Your task to perform on an android device: Search for a new lawnmower on Lowes.com Image 0: 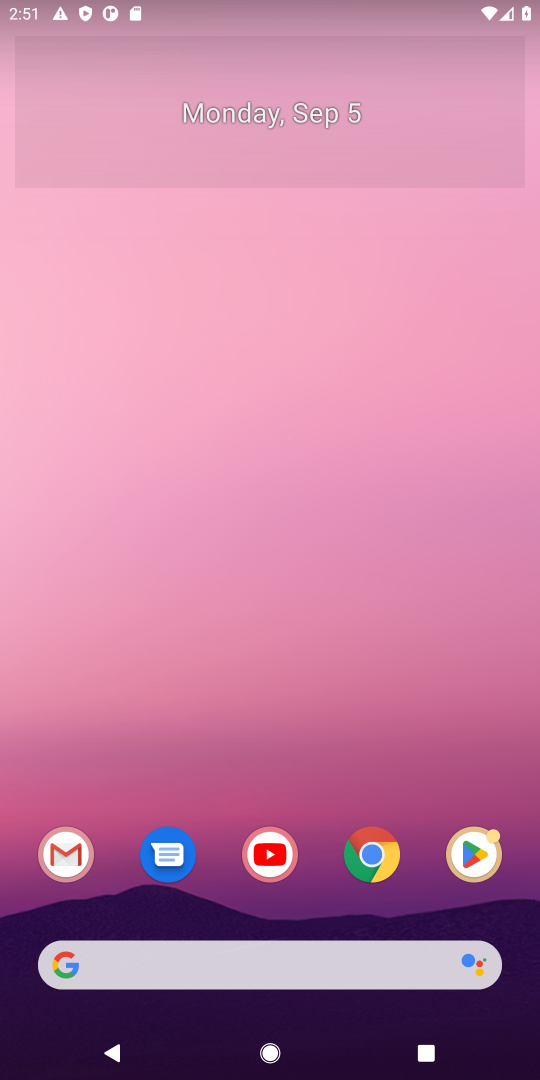
Step 0: click (392, 963)
Your task to perform on an android device: Search for a new lawnmower on Lowes.com Image 1: 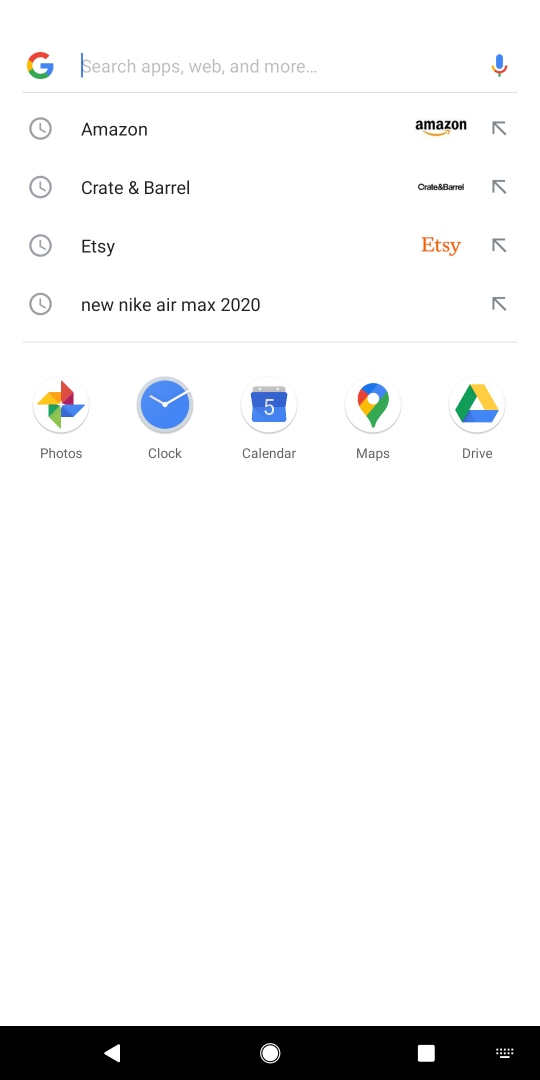
Step 1: type "lowes.com"
Your task to perform on an android device: Search for a new lawnmower on Lowes.com Image 2: 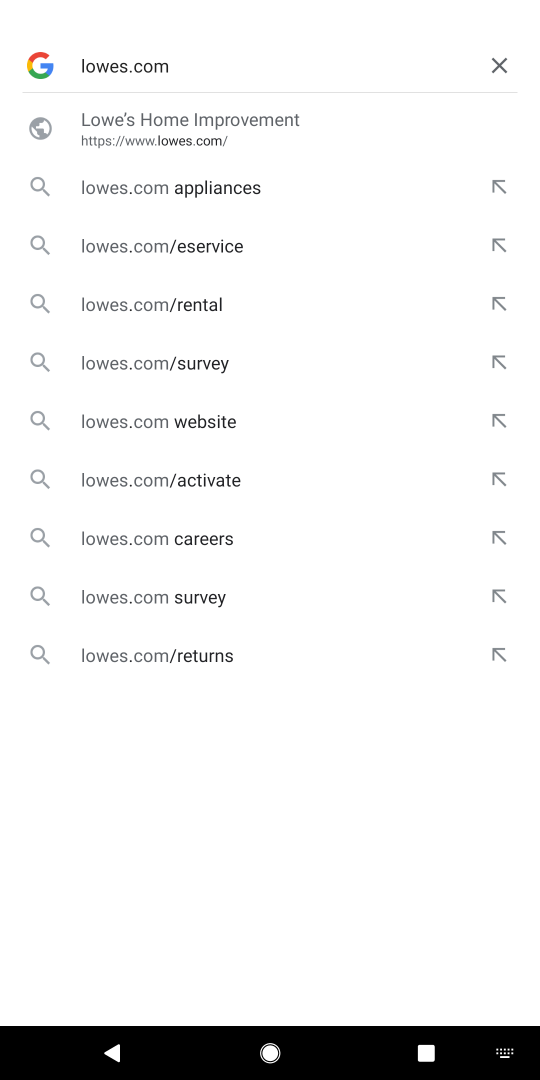
Step 2: press enter
Your task to perform on an android device: Search for a new lawnmower on Lowes.com Image 3: 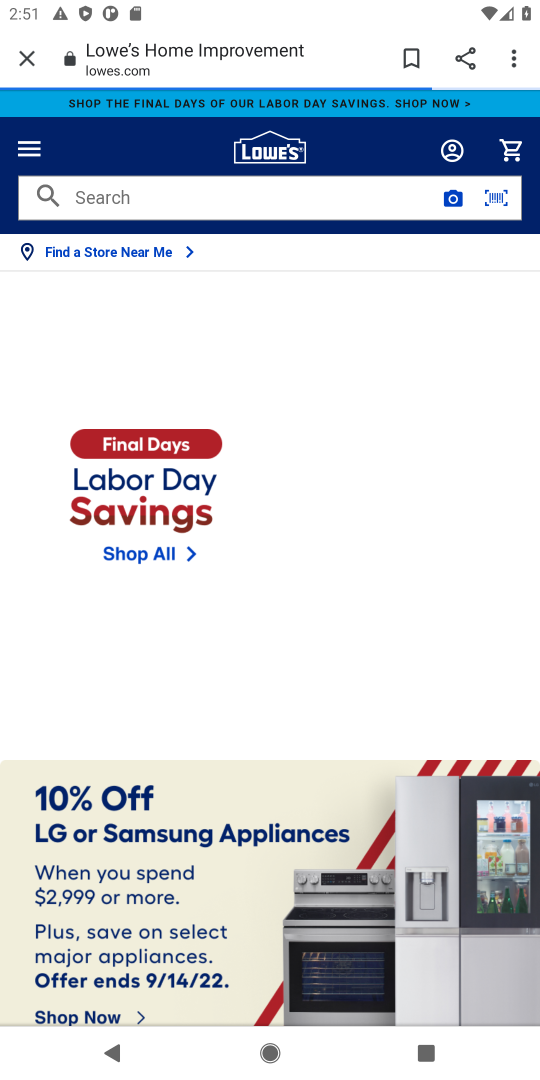
Step 3: click (216, 194)
Your task to perform on an android device: Search for a new lawnmower on Lowes.com Image 4: 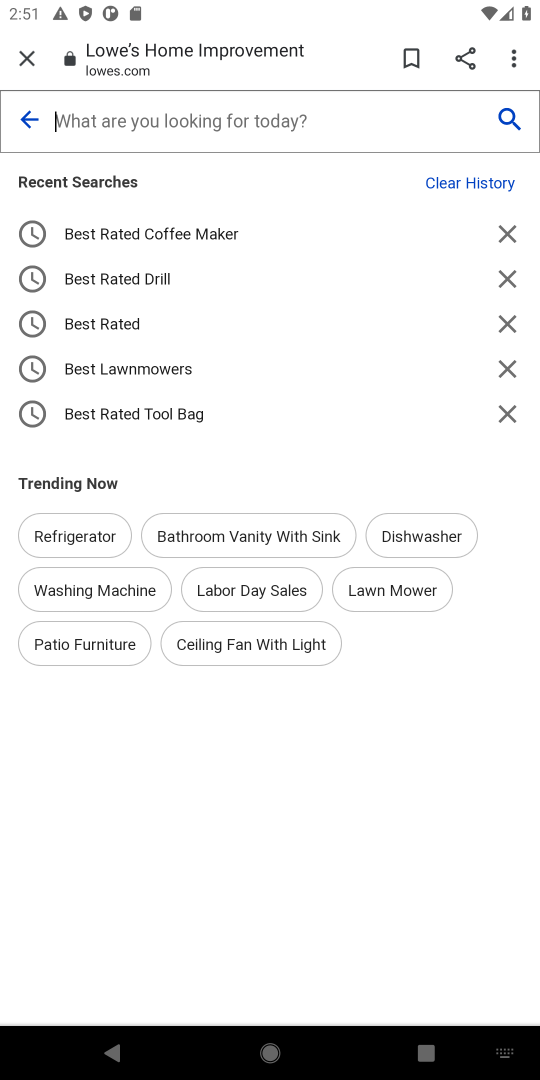
Step 4: press enter
Your task to perform on an android device: Search for a new lawnmower on Lowes.com Image 5: 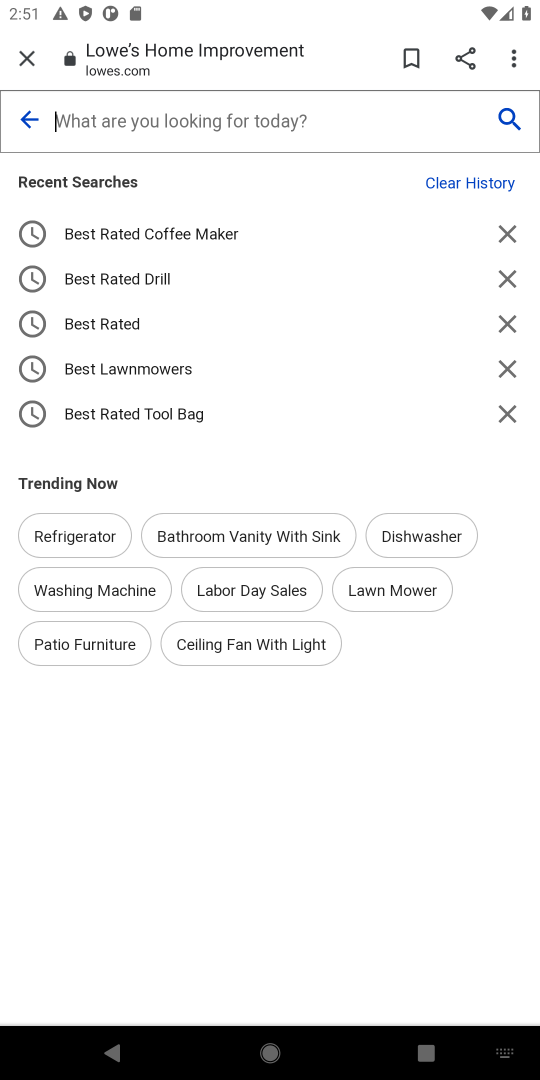
Step 5: type "new lawnmower"
Your task to perform on an android device: Search for a new lawnmower on Lowes.com Image 6: 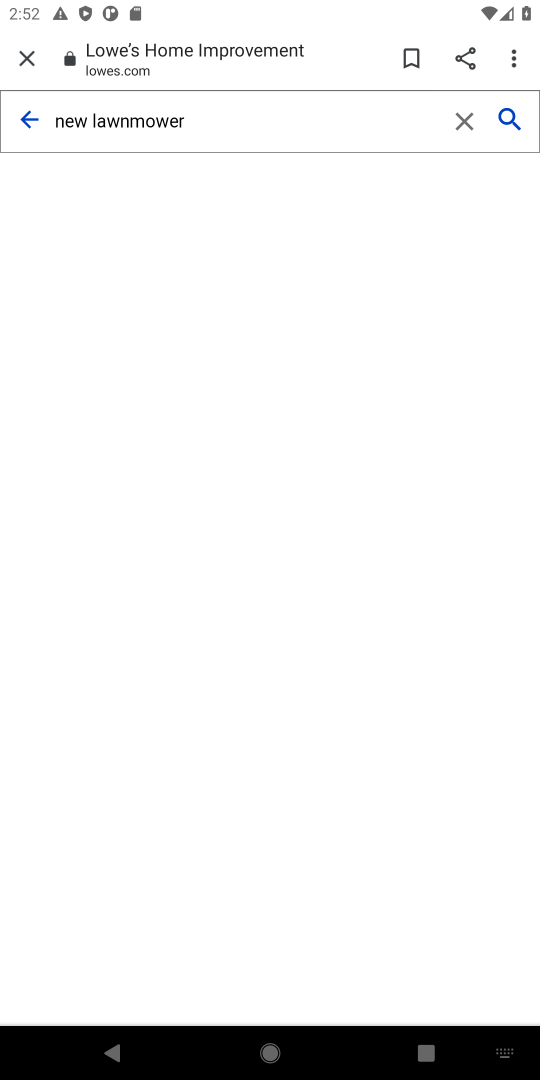
Step 6: click (514, 113)
Your task to perform on an android device: Search for a new lawnmower on Lowes.com Image 7: 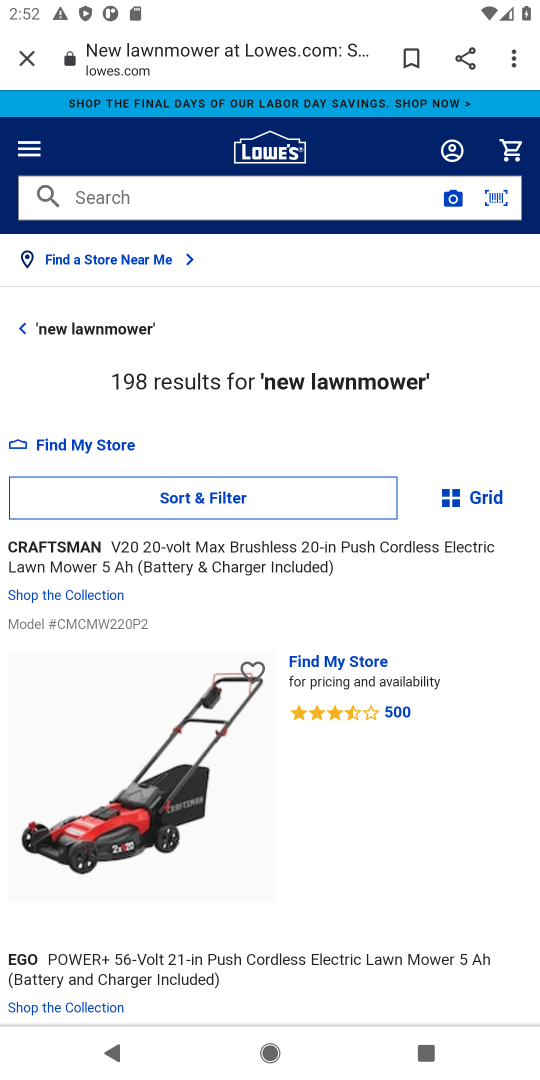
Step 7: task complete